Your task to perform on an android device: turn on translation in the chrome app Image 0: 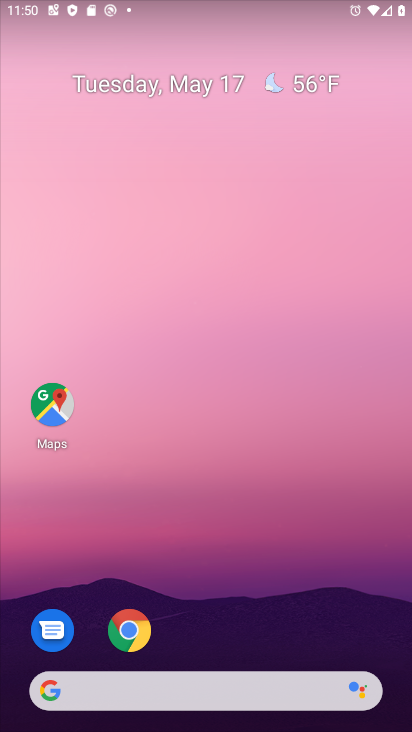
Step 0: drag from (307, 582) to (313, 199)
Your task to perform on an android device: turn on translation in the chrome app Image 1: 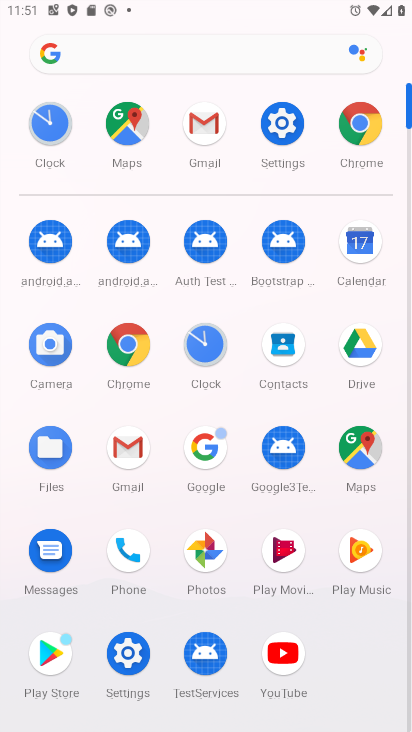
Step 1: click (139, 338)
Your task to perform on an android device: turn on translation in the chrome app Image 2: 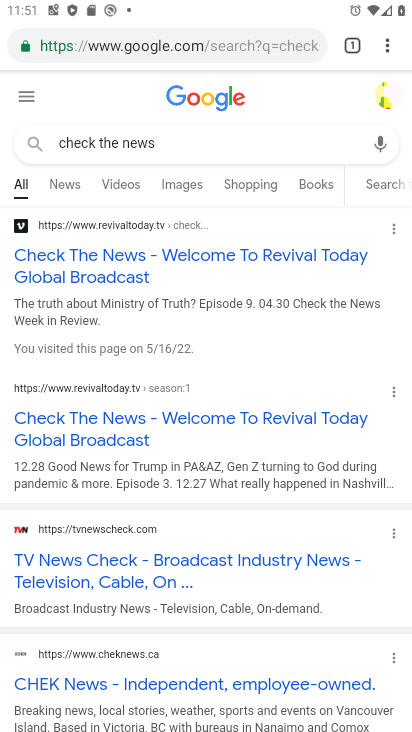
Step 2: drag from (394, 49) to (231, 507)
Your task to perform on an android device: turn on translation in the chrome app Image 3: 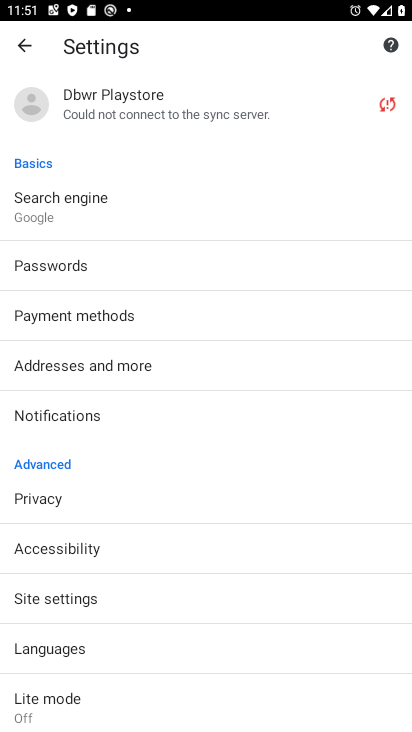
Step 3: drag from (160, 667) to (257, 305)
Your task to perform on an android device: turn on translation in the chrome app Image 4: 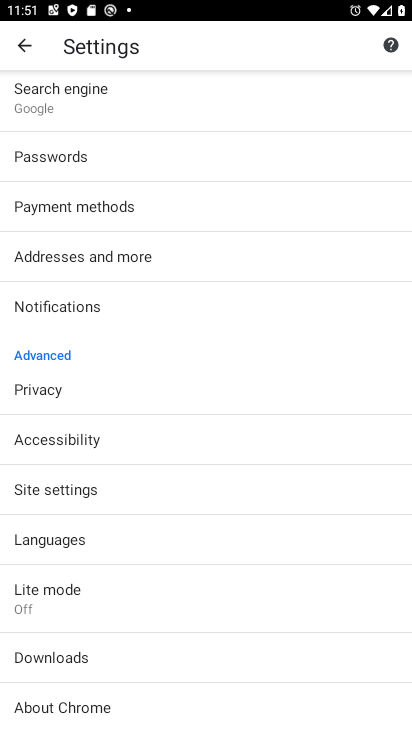
Step 4: click (151, 543)
Your task to perform on an android device: turn on translation in the chrome app Image 5: 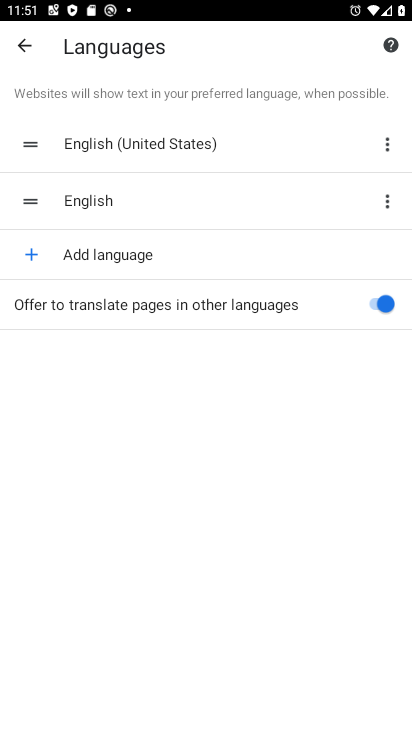
Step 5: task complete